Your task to perform on an android device: search for starred emails in the gmail app Image 0: 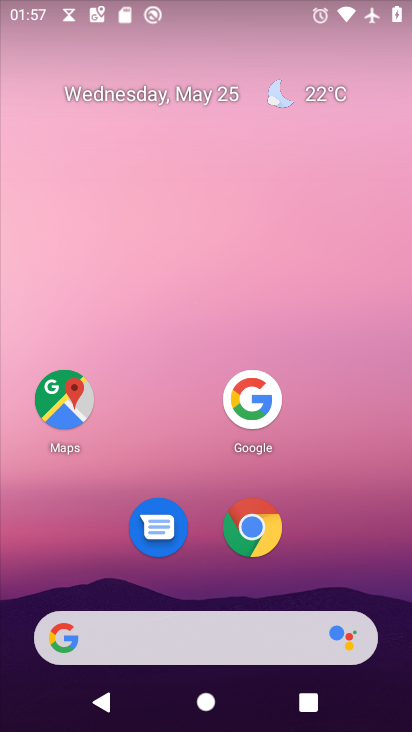
Step 0: press home button
Your task to perform on an android device: search for starred emails in the gmail app Image 1: 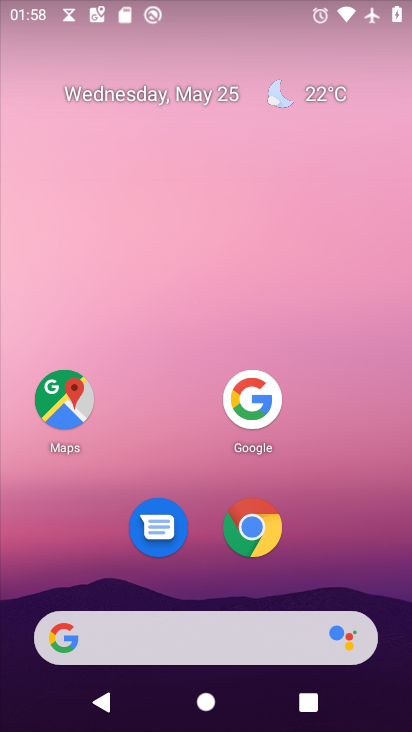
Step 1: drag from (213, 545) to (331, 151)
Your task to perform on an android device: search for starred emails in the gmail app Image 2: 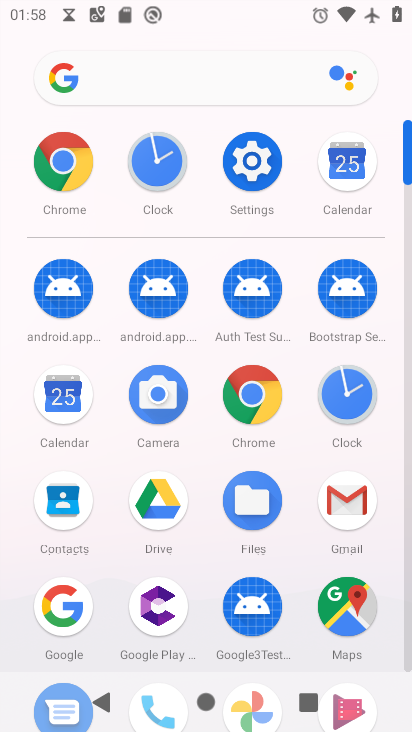
Step 2: click (347, 510)
Your task to perform on an android device: search for starred emails in the gmail app Image 3: 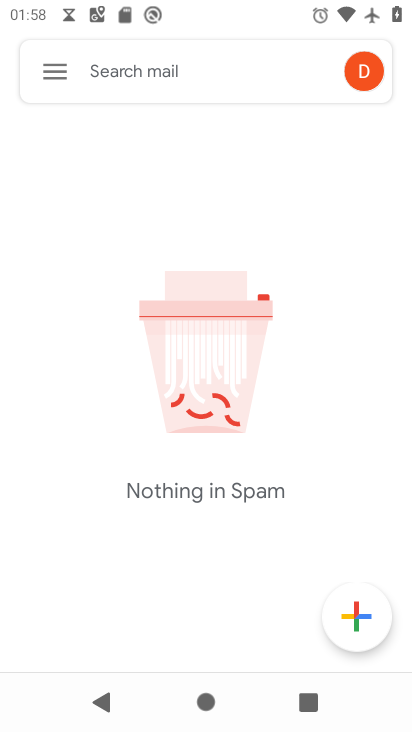
Step 3: click (48, 78)
Your task to perform on an android device: search for starred emails in the gmail app Image 4: 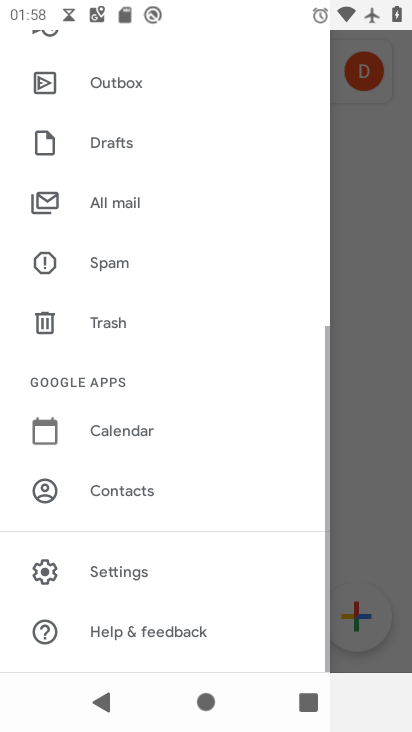
Step 4: drag from (187, 189) to (99, 563)
Your task to perform on an android device: search for starred emails in the gmail app Image 5: 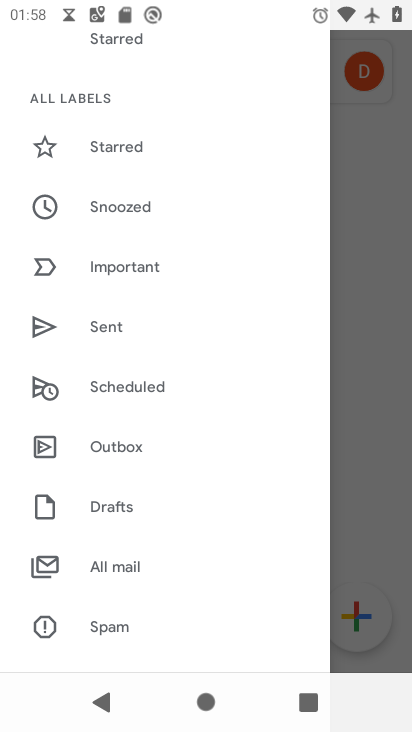
Step 5: click (117, 143)
Your task to perform on an android device: search for starred emails in the gmail app Image 6: 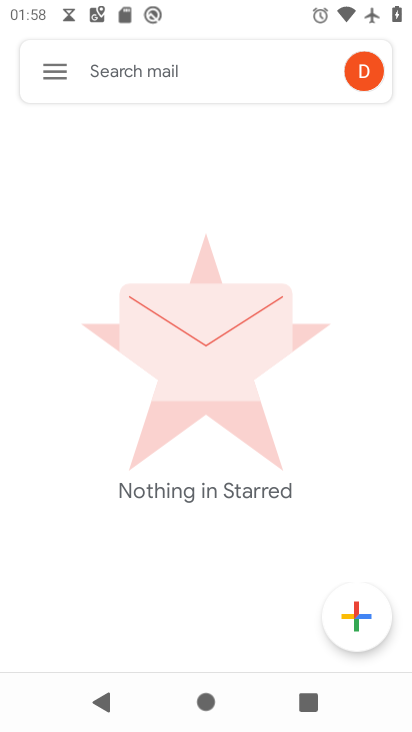
Step 6: task complete